Your task to perform on an android device: remove spam from my inbox in the gmail app Image 0: 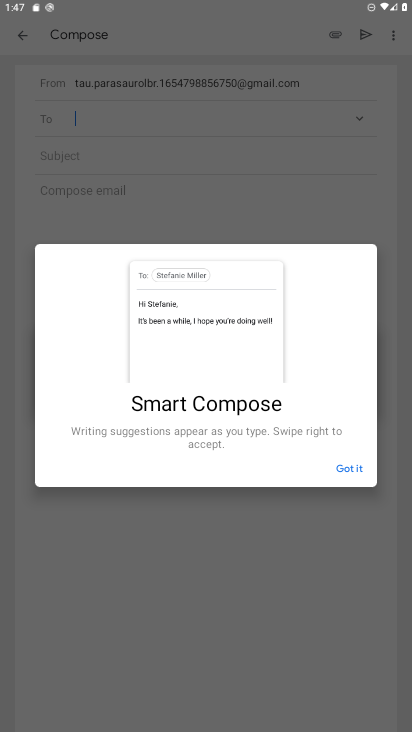
Step 0: press home button
Your task to perform on an android device: remove spam from my inbox in the gmail app Image 1: 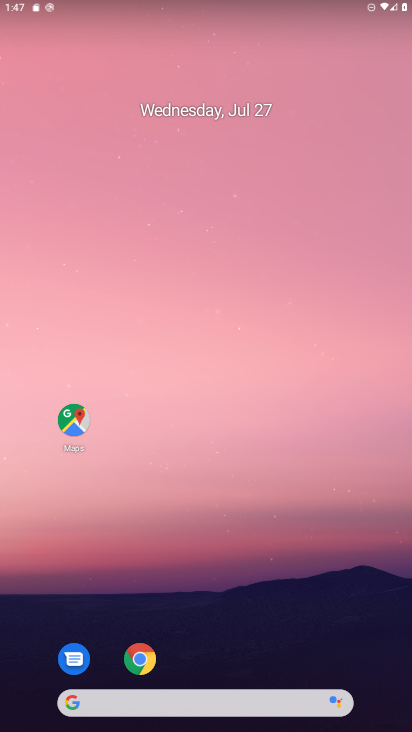
Step 1: drag from (344, 628) to (157, 7)
Your task to perform on an android device: remove spam from my inbox in the gmail app Image 2: 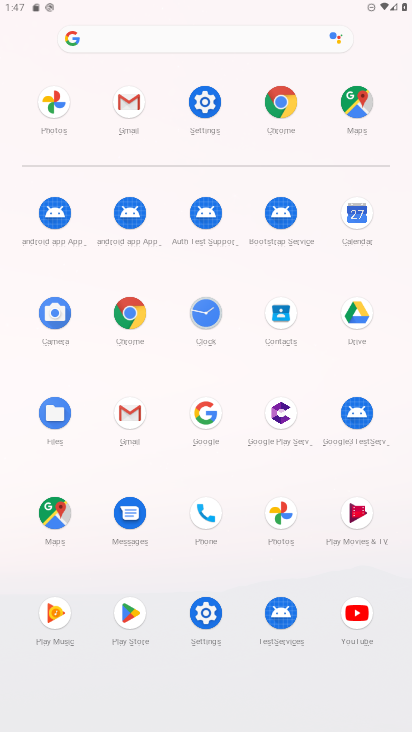
Step 2: click (138, 102)
Your task to perform on an android device: remove spam from my inbox in the gmail app Image 3: 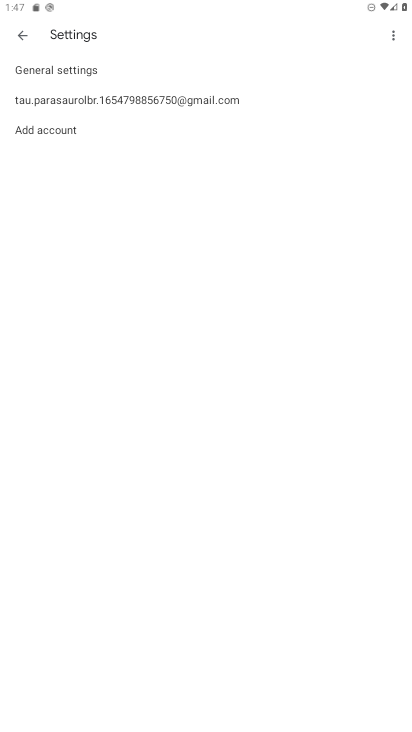
Step 3: click (25, 38)
Your task to perform on an android device: remove spam from my inbox in the gmail app Image 4: 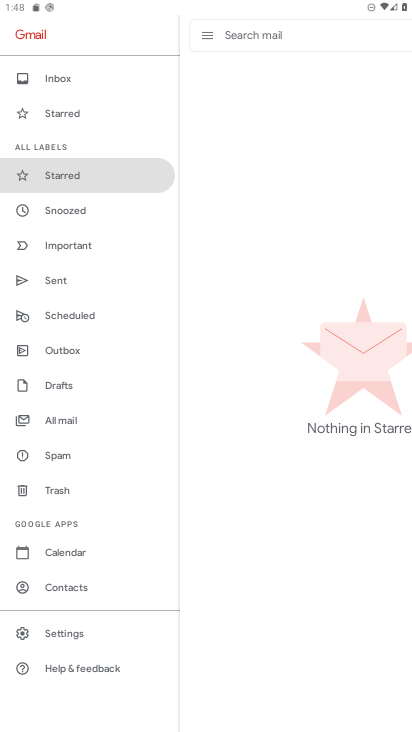
Step 4: click (60, 461)
Your task to perform on an android device: remove spam from my inbox in the gmail app Image 5: 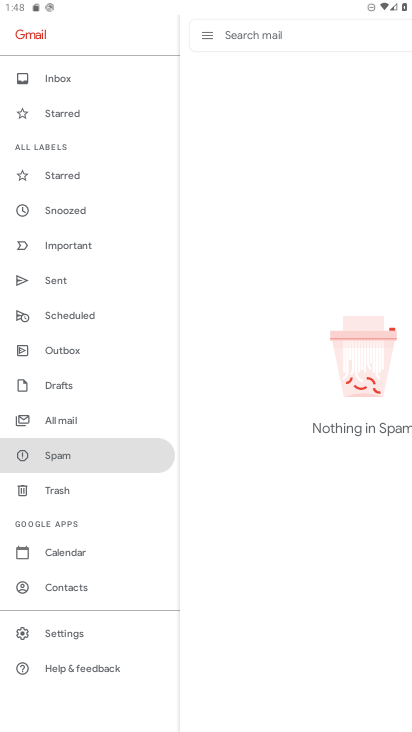
Step 5: click (65, 83)
Your task to perform on an android device: remove spam from my inbox in the gmail app Image 6: 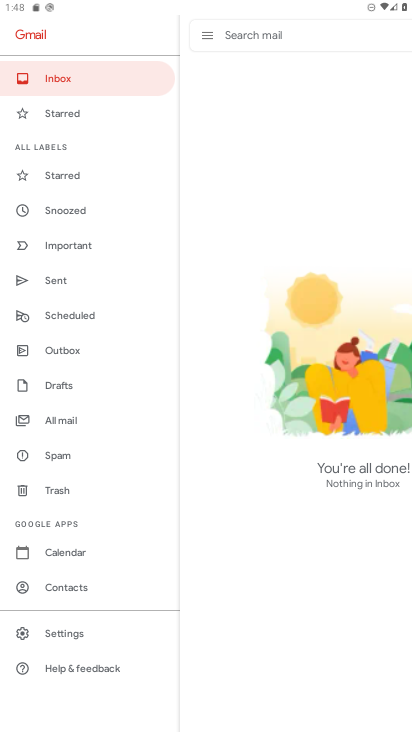
Step 6: task complete